Your task to perform on an android device: Open settings Image 0: 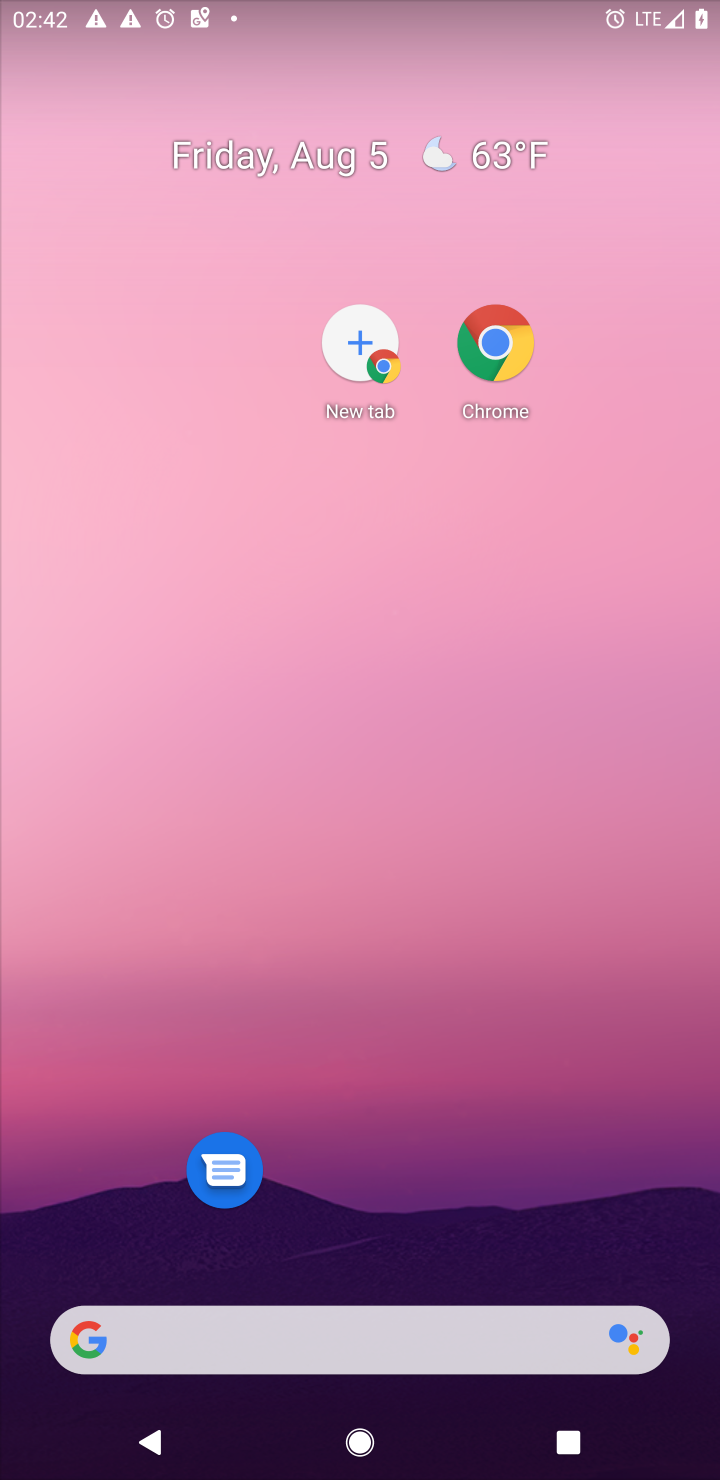
Step 0: drag from (416, 1240) to (355, 194)
Your task to perform on an android device: Open settings Image 1: 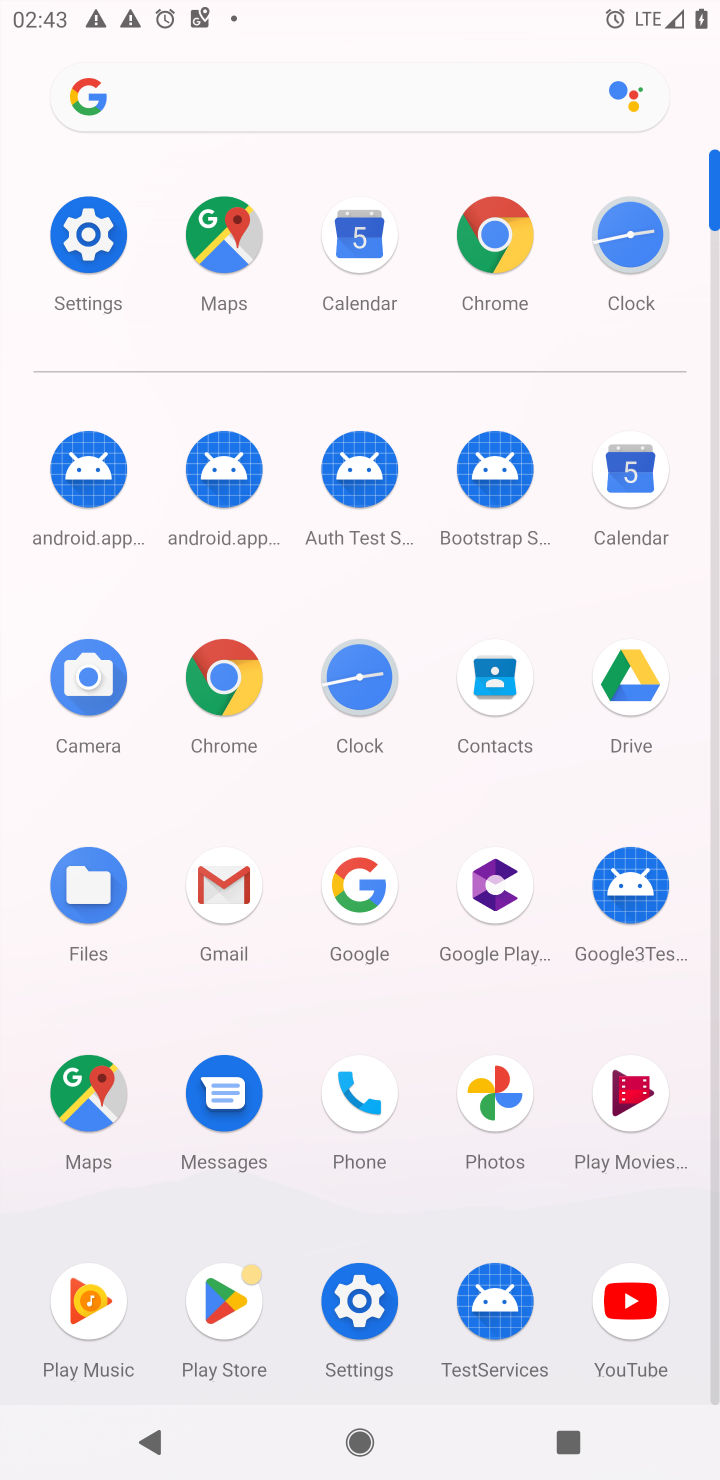
Step 1: click (342, 1321)
Your task to perform on an android device: Open settings Image 2: 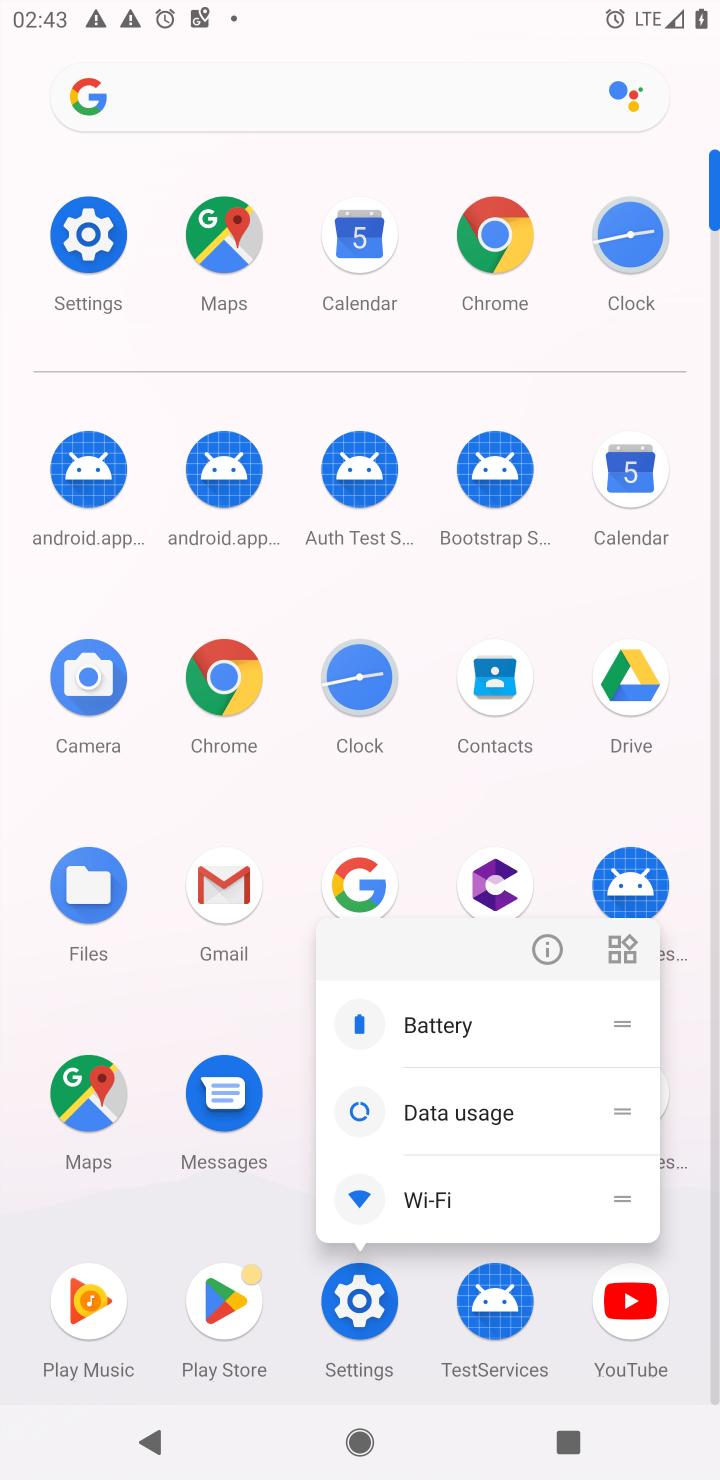
Step 2: click (369, 1322)
Your task to perform on an android device: Open settings Image 3: 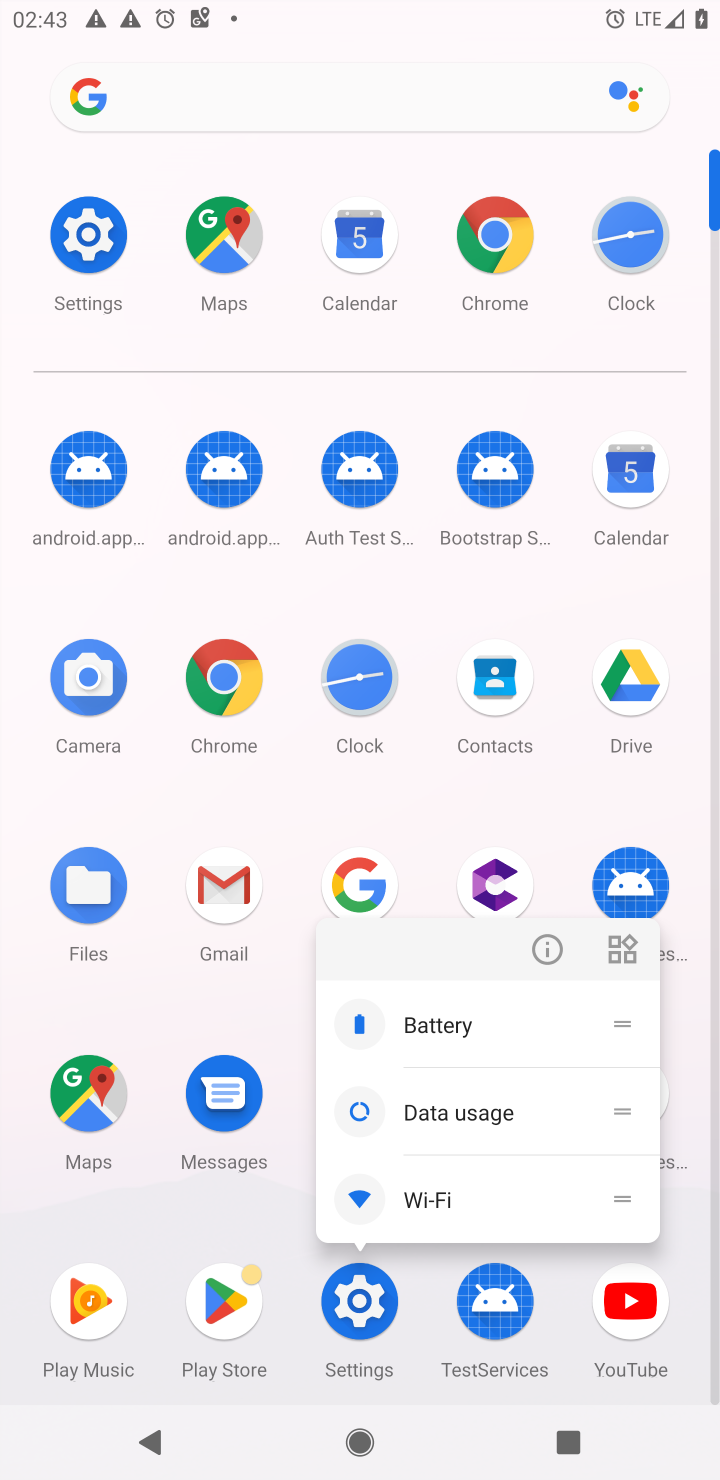
Step 3: click (369, 1322)
Your task to perform on an android device: Open settings Image 4: 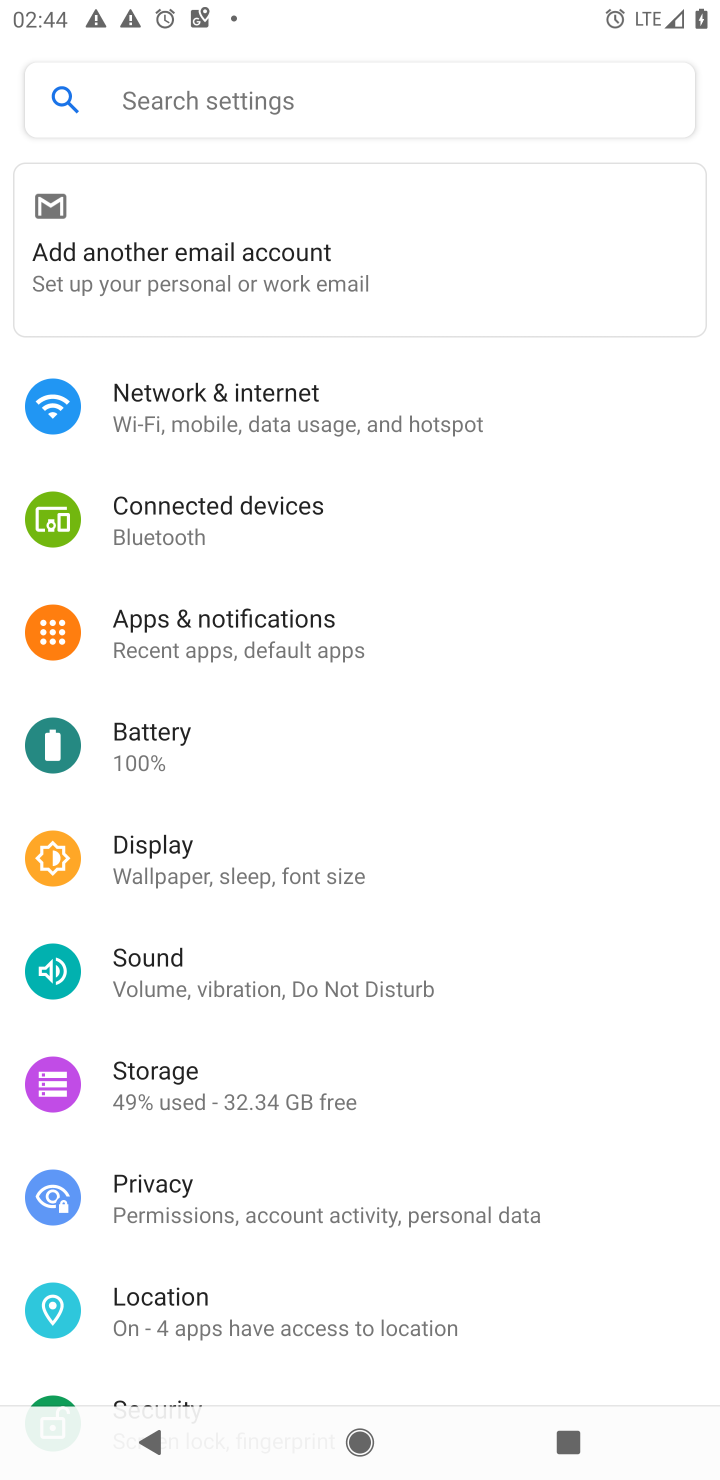
Step 4: task complete